Your task to perform on an android device: Open Google Maps and go to "Timeline" Image 0: 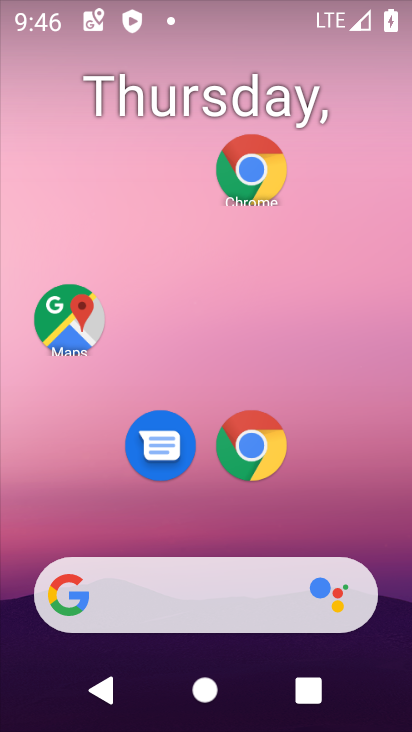
Step 0: drag from (246, 557) to (185, 11)
Your task to perform on an android device: Open Google Maps and go to "Timeline" Image 1: 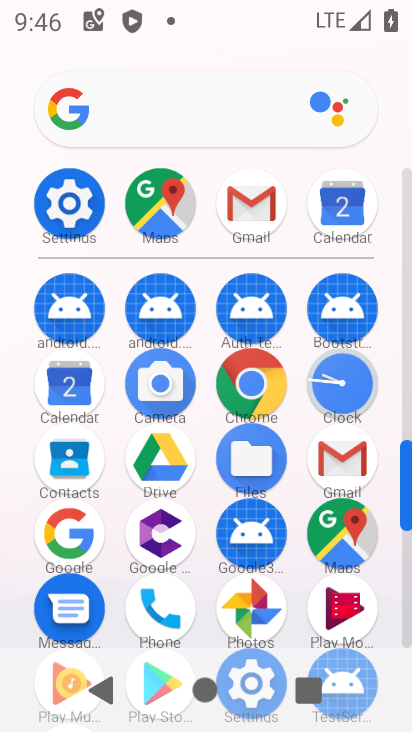
Step 1: click (335, 541)
Your task to perform on an android device: Open Google Maps and go to "Timeline" Image 2: 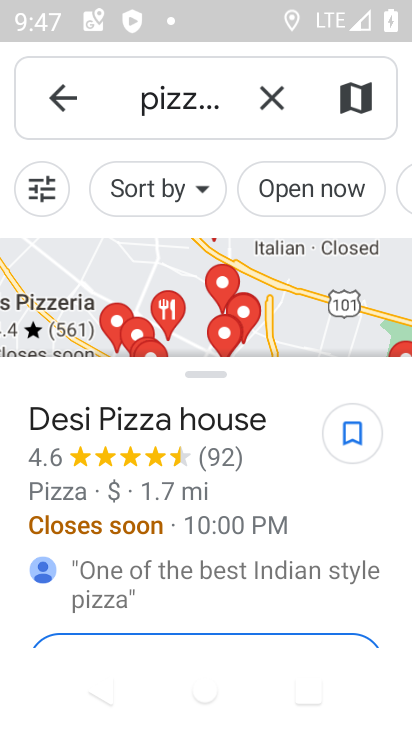
Step 2: click (66, 111)
Your task to perform on an android device: Open Google Maps and go to "Timeline" Image 3: 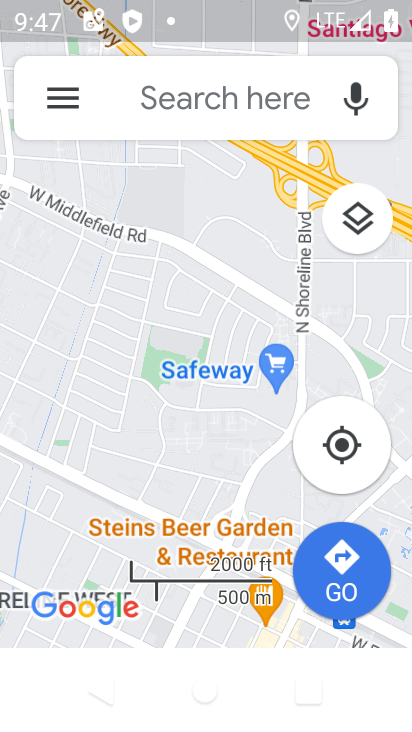
Step 3: click (63, 90)
Your task to perform on an android device: Open Google Maps and go to "Timeline" Image 4: 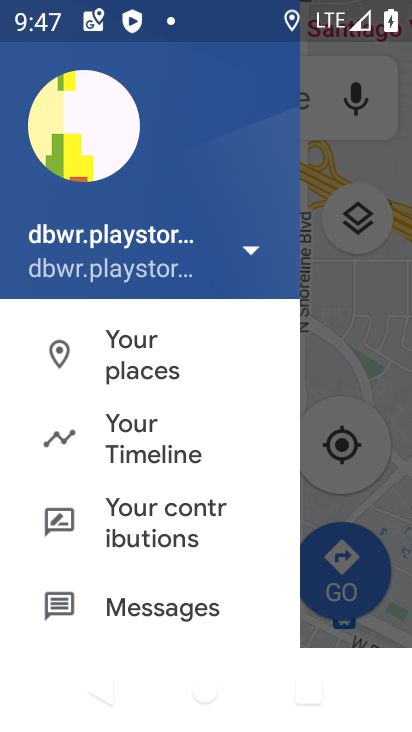
Step 4: click (141, 448)
Your task to perform on an android device: Open Google Maps and go to "Timeline" Image 5: 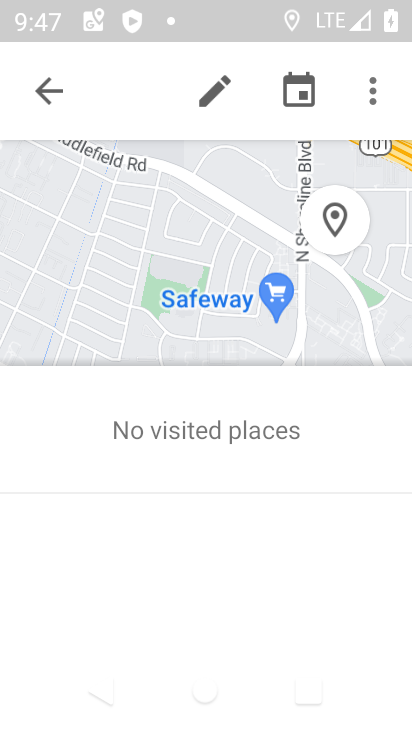
Step 5: task complete